Your task to perform on an android device: empty trash in google photos Image 0: 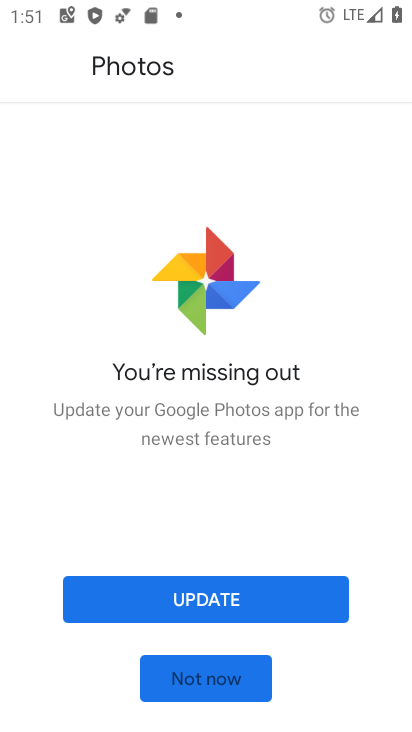
Step 0: press home button
Your task to perform on an android device: empty trash in google photos Image 1: 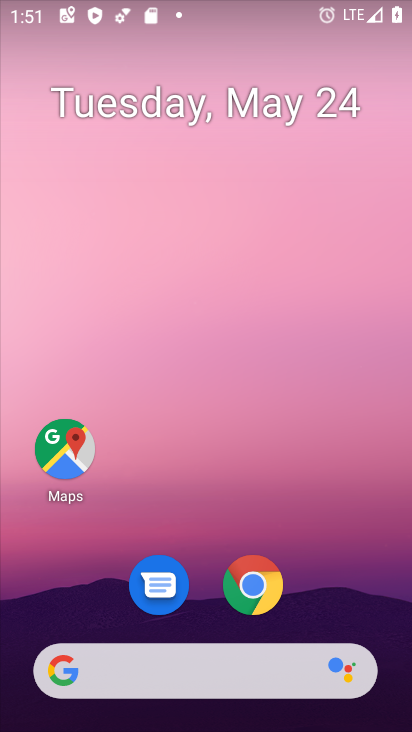
Step 1: drag from (216, 501) to (228, 2)
Your task to perform on an android device: empty trash in google photos Image 2: 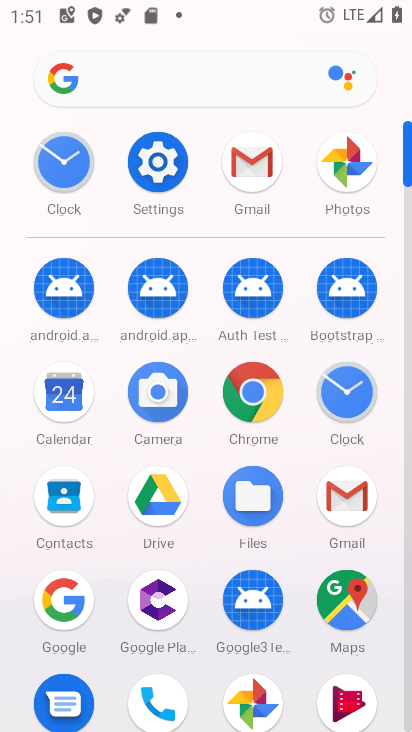
Step 2: click (353, 264)
Your task to perform on an android device: empty trash in google photos Image 3: 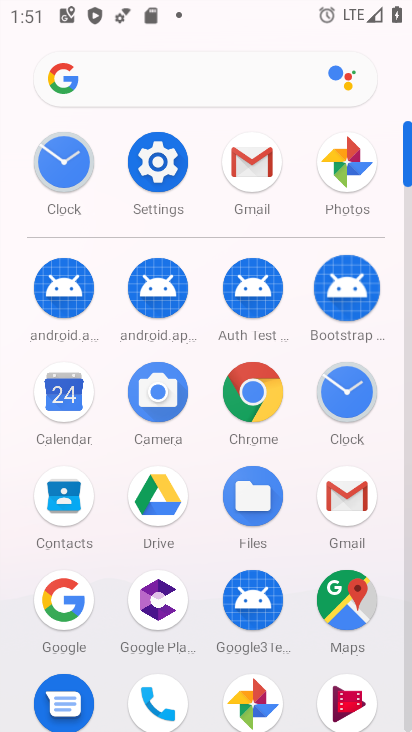
Step 3: click (344, 169)
Your task to perform on an android device: empty trash in google photos Image 4: 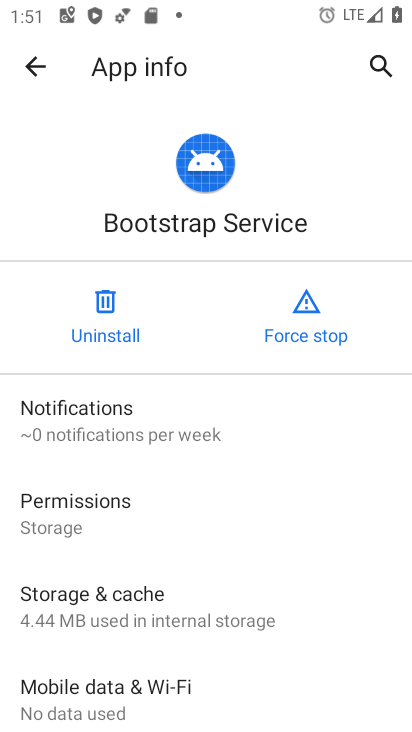
Step 4: click (39, 59)
Your task to perform on an android device: empty trash in google photos Image 5: 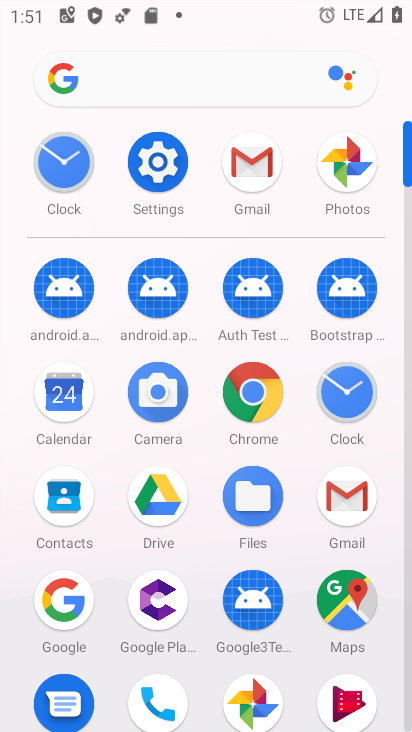
Step 5: click (341, 160)
Your task to perform on an android device: empty trash in google photos Image 6: 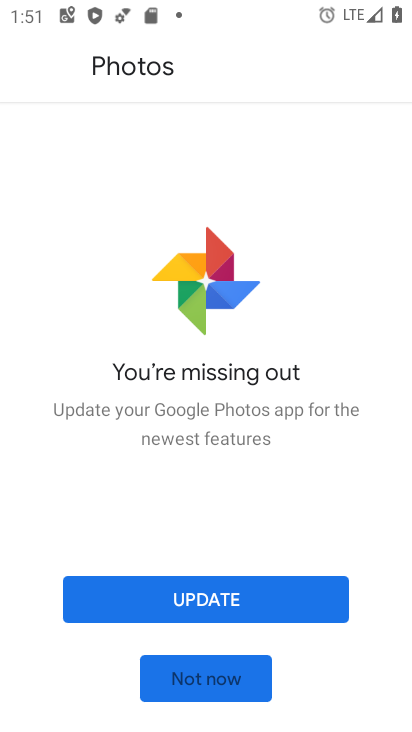
Step 6: click (235, 675)
Your task to perform on an android device: empty trash in google photos Image 7: 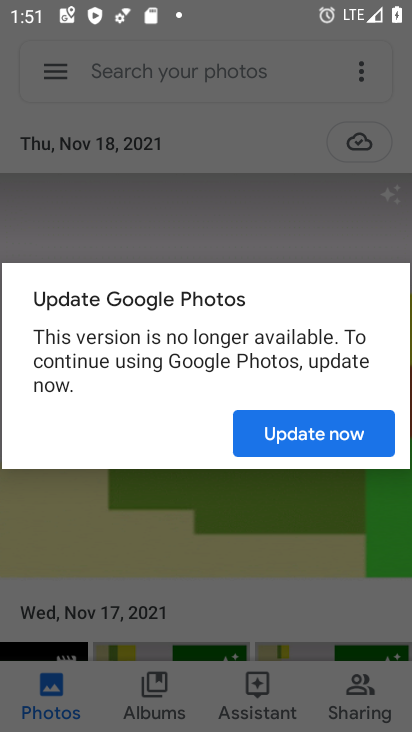
Step 7: click (356, 430)
Your task to perform on an android device: empty trash in google photos Image 8: 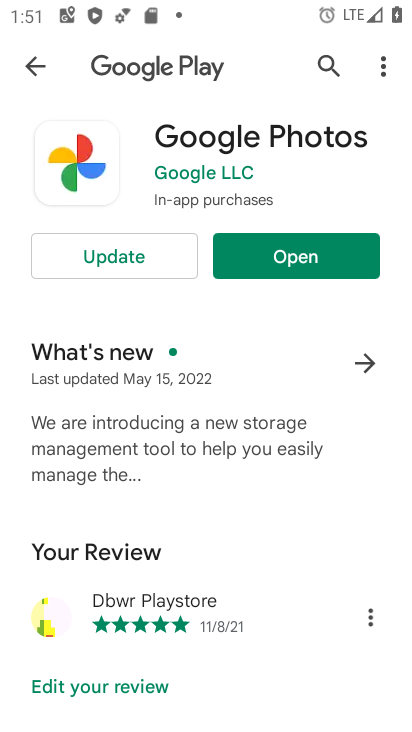
Step 8: click (330, 256)
Your task to perform on an android device: empty trash in google photos Image 9: 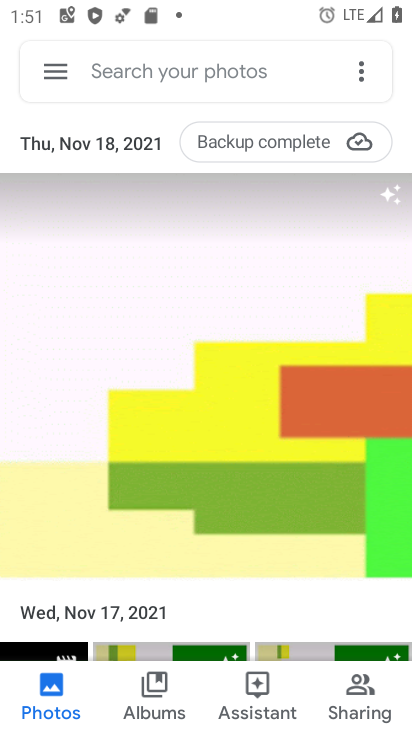
Step 9: click (64, 69)
Your task to perform on an android device: empty trash in google photos Image 10: 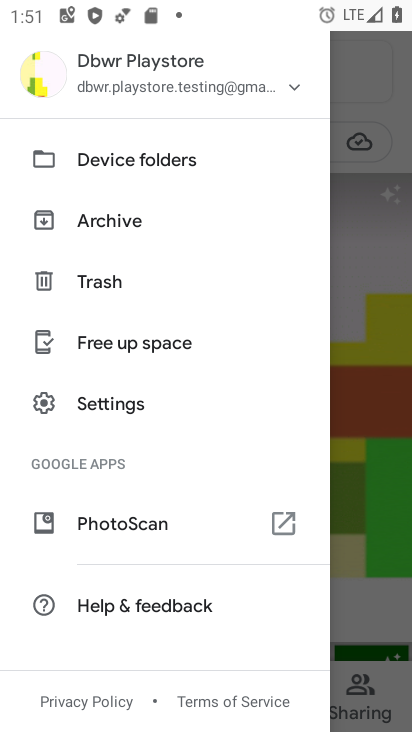
Step 10: click (113, 271)
Your task to perform on an android device: empty trash in google photos Image 11: 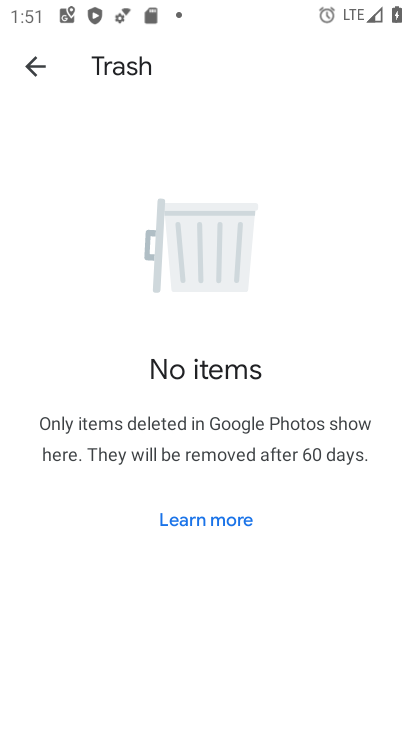
Step 11: task complete